Your task to perform on an android device: Open network settings Image 0: 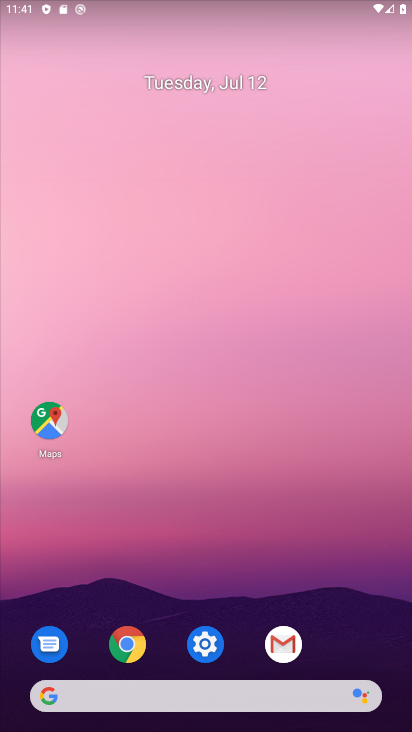
Step 0: click (209, 649)
Your task to perform on an android device: Open network settings Image 1: 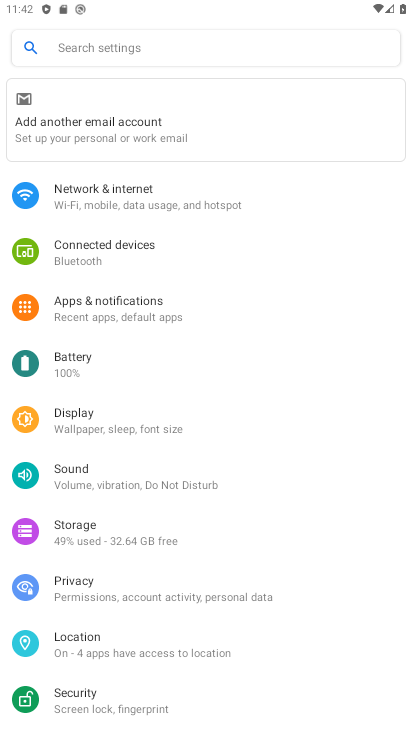
Step 1: click (97, 192)
Your task to perform on an android device: Open network settings Image 2: 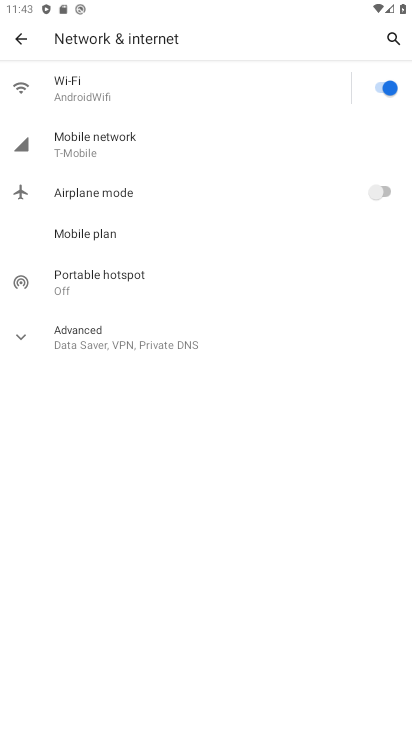
Step 2: task complete